Your task to perform on an android device: open sync settings in chrome Image 0: 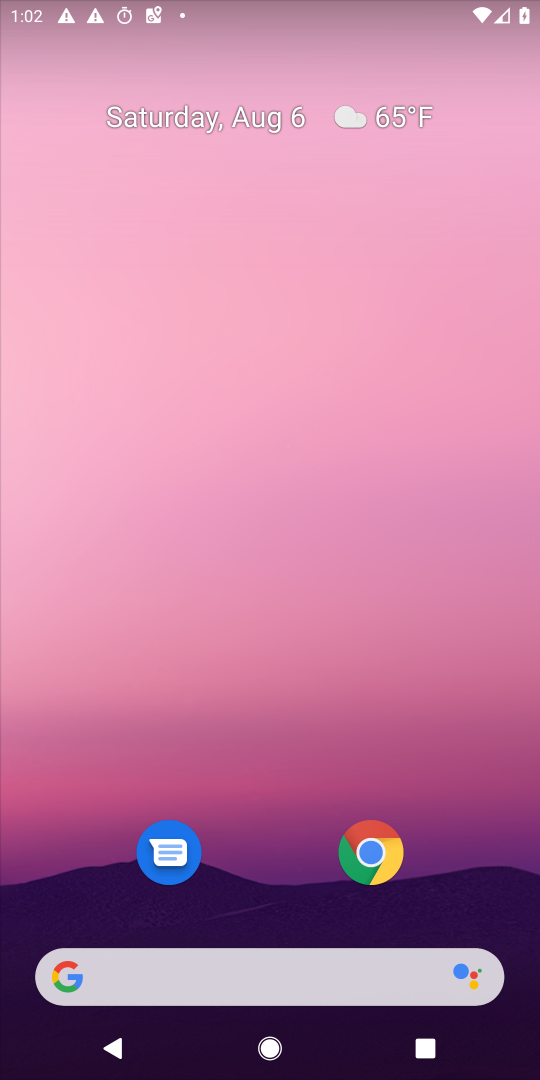
Step 0: press home button
Your task to perform on an android device: open sync settings in chrome Image 1: 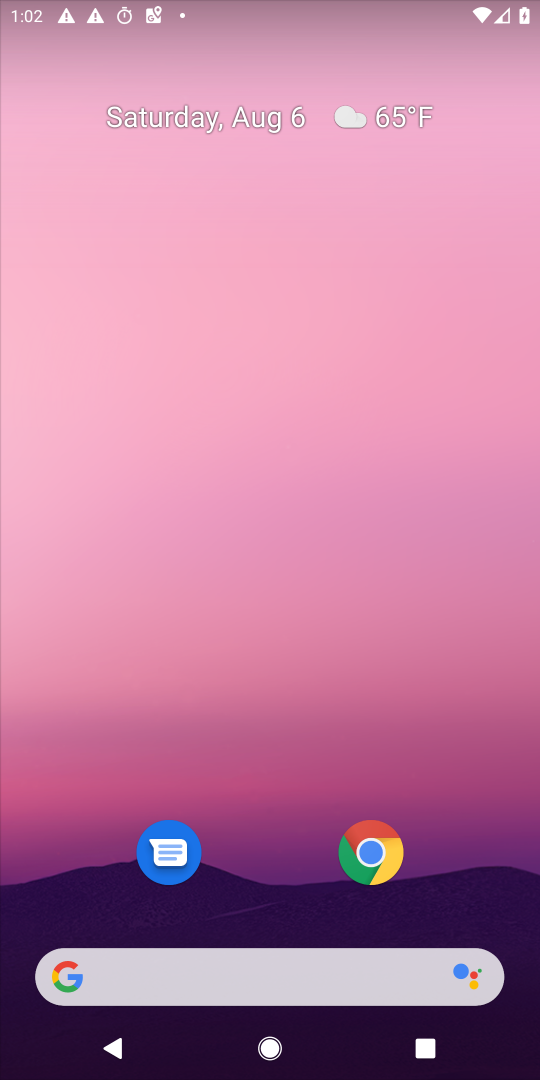
Step 1: drag from (362, 987) to (276, 198)
Your task to perform on an android device: open sync settings in chrome Image 2: 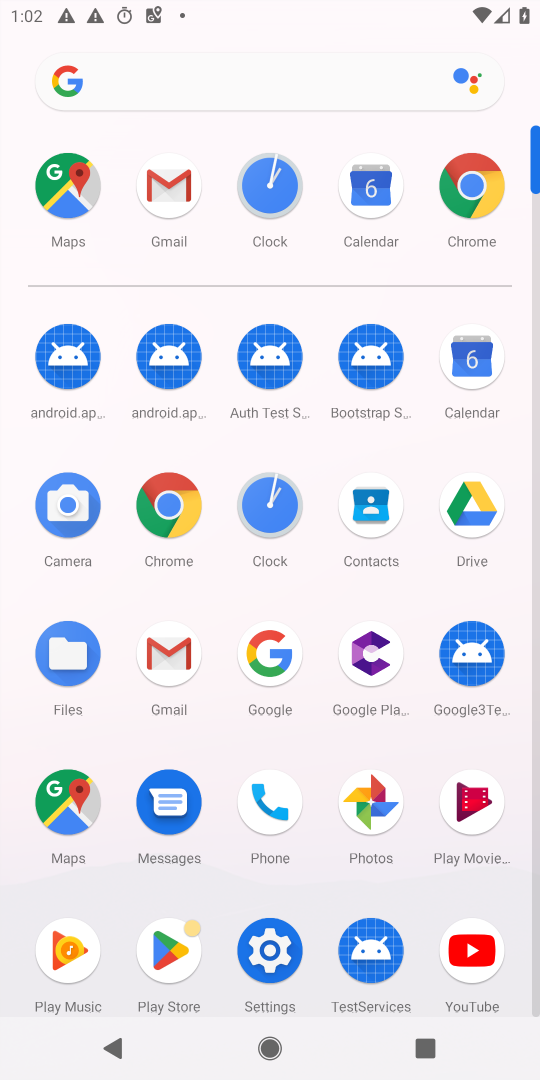
Step 2: click (495, 181)
Your task to perform on an android device: open sync settings in chrome Image 3: 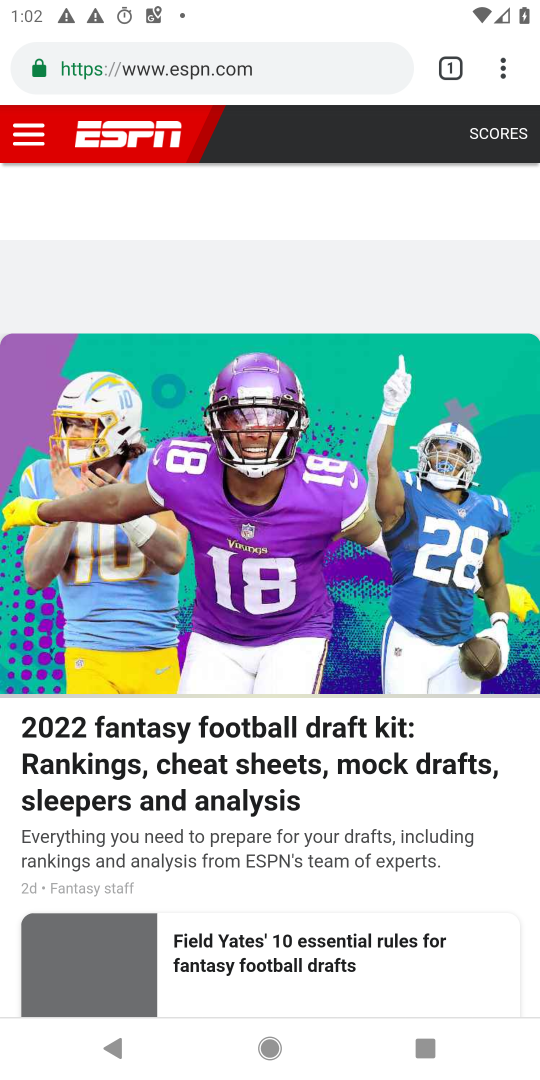
Step 3: click (516, 51)
Your task to perform on an android device: open sync settings in chrome Image 4: 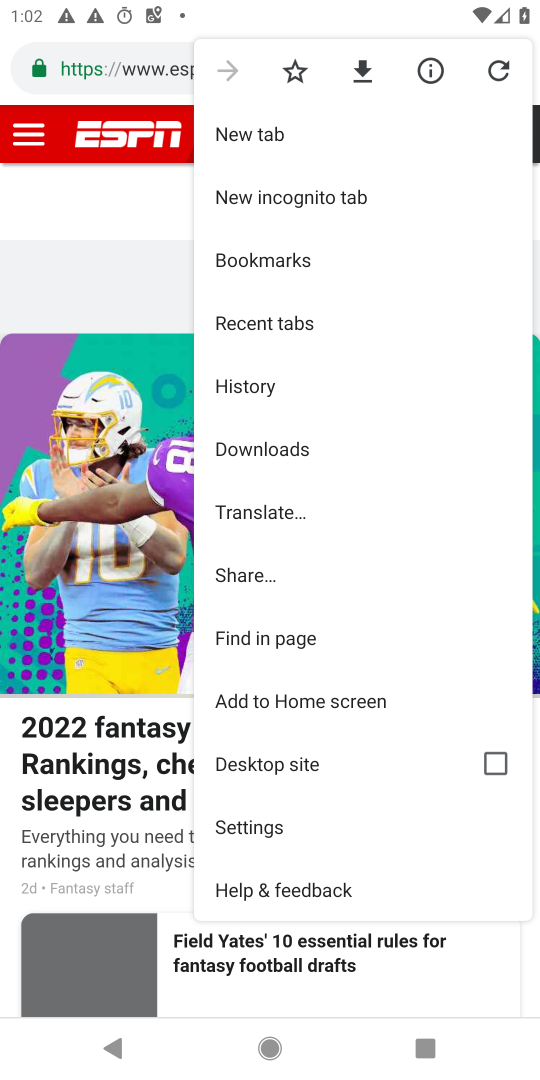
Step 4: click (271, 816)
Your task to perform on an android device: open sync settings in chrome Image 5: 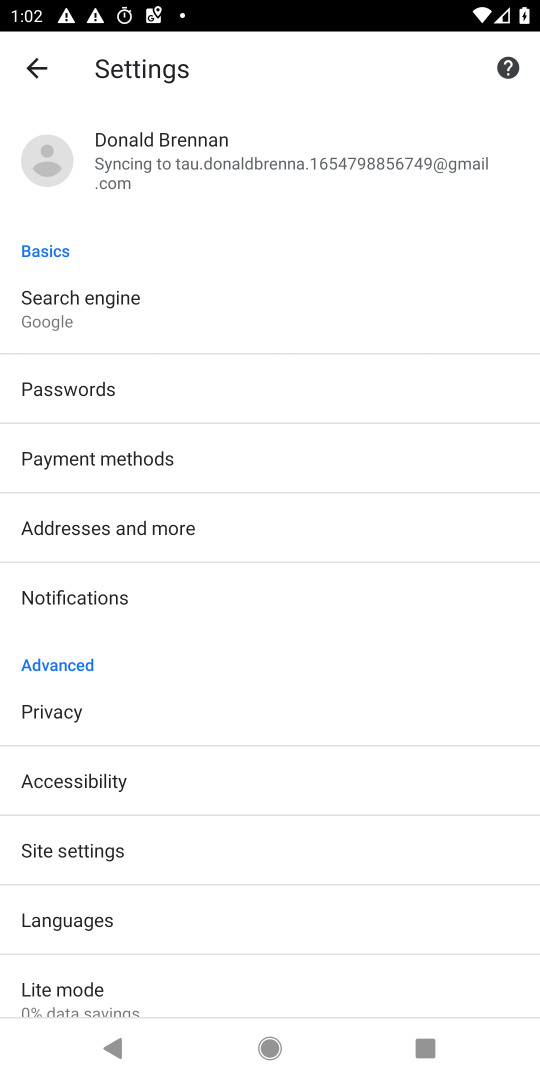
Step 5: click (139, 842)
Your task to perform on an android device: open sync settings in chrome Image 6: 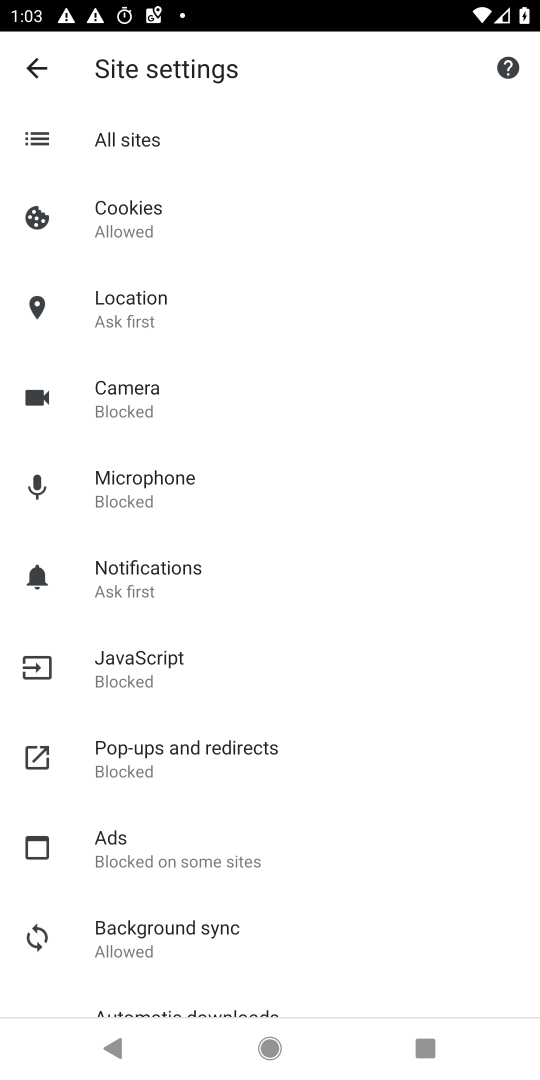
Step 6: click (154, 926)
Your task to perform on an android device: open sync settings in chrome Image 7: 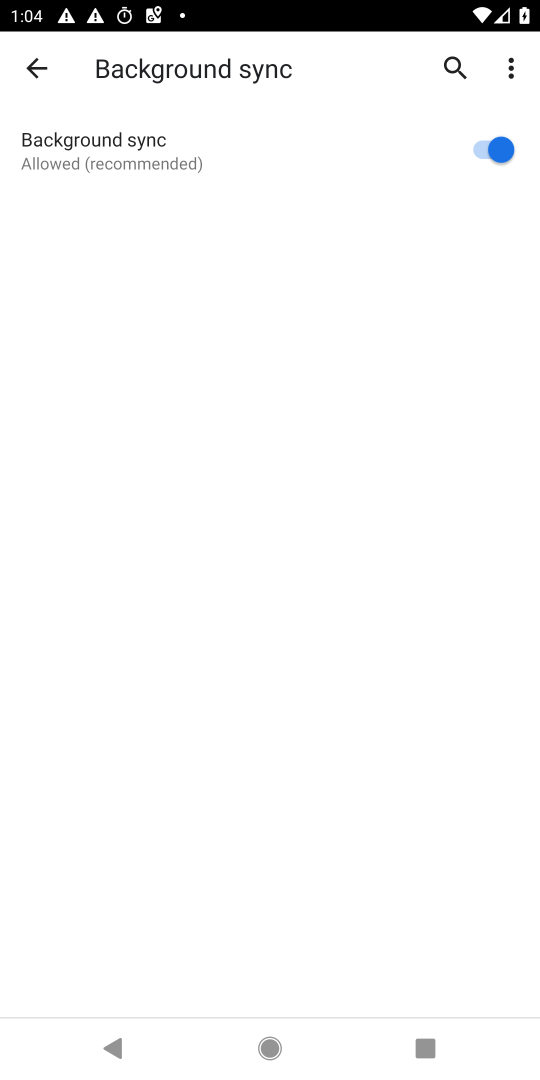
Step 7: task complete